Your task to perform on an android device: move a message to another label in the gmail app Image 0: 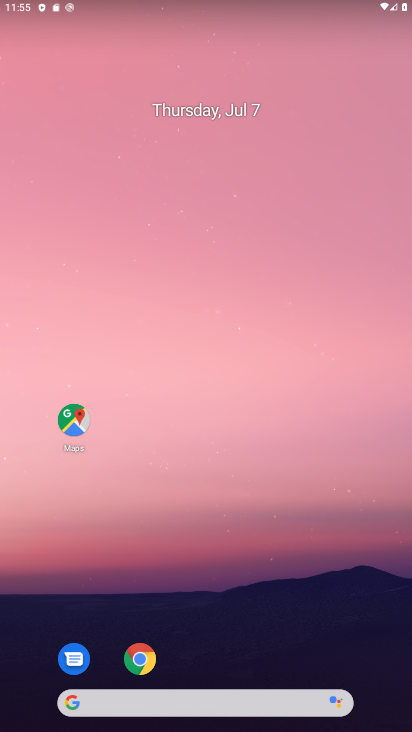
Step 0: drag from (217, 536) to (151, 158)
Your task to perform on an android device: move a message to another label in the gmail app Image 1: 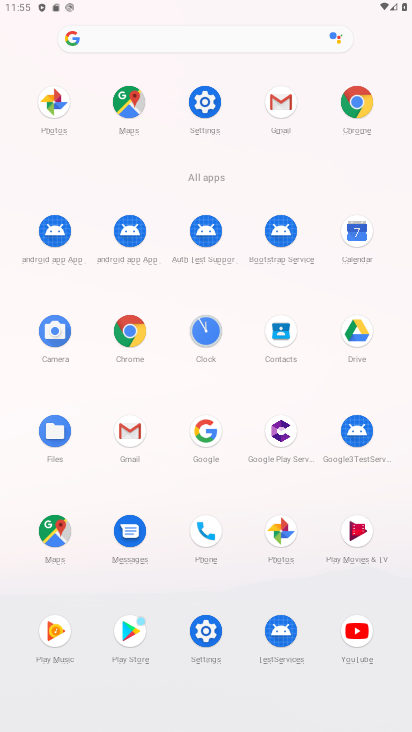
Step 1: click (273, 103)
Your task to perform on an android device: move a message to another label in the gmail app Image 2: 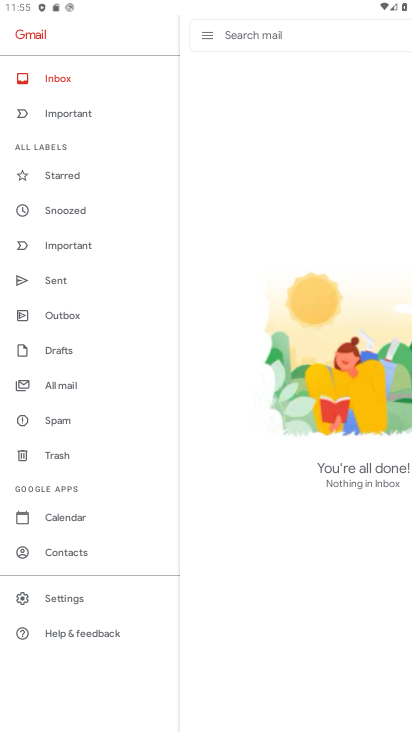
Step 2: task complete